Your task to perform on an android device: What's the weather going to be tomorrow? Image 0: 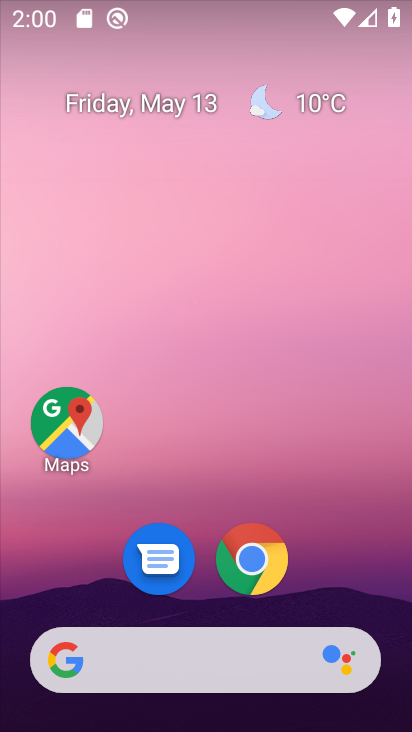
Step 0: drag from (408, 675) to (366, 205)
Your task to perform on an android device: What's the weather going to be tomorrow? Image 1: 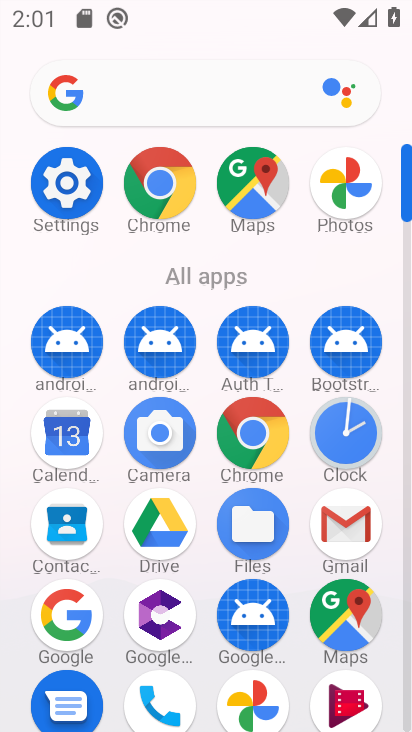
Step 1: press home button
Your task to perform on an android device: What's the weather going to be tomorrow? Image 2: 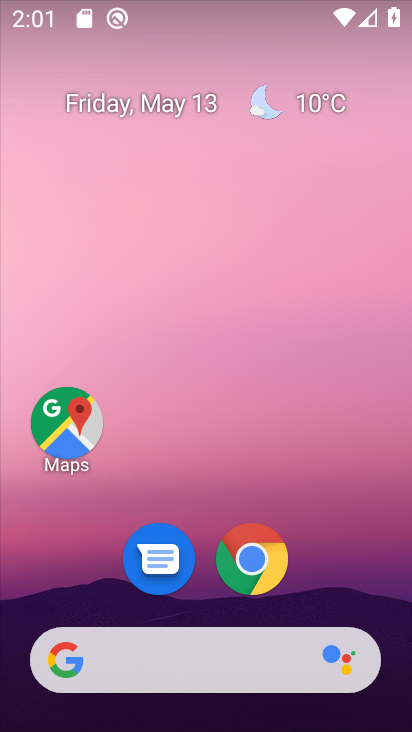
Step 2: click (306, 103)
Your task to perform on an android device: What's the weather going to be tomorrow? Image 3: 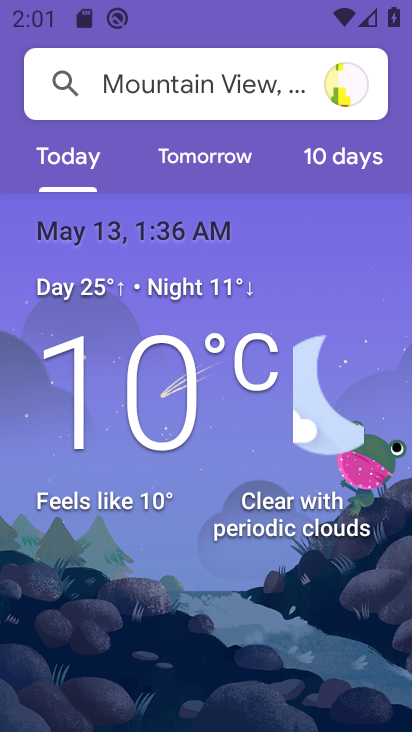
Step 3: click (195, 155)
Your task to perform on an android device: What's the weather going to be tomorrow? Image 4: 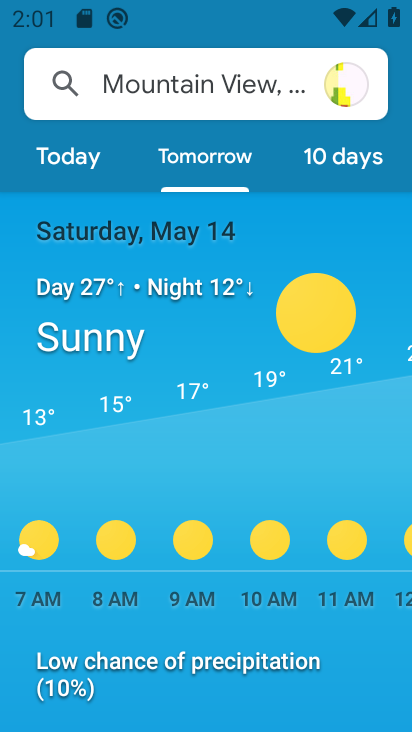
Step 4: task complete